Your task to perform on an android device: Open sound settings Image 0: 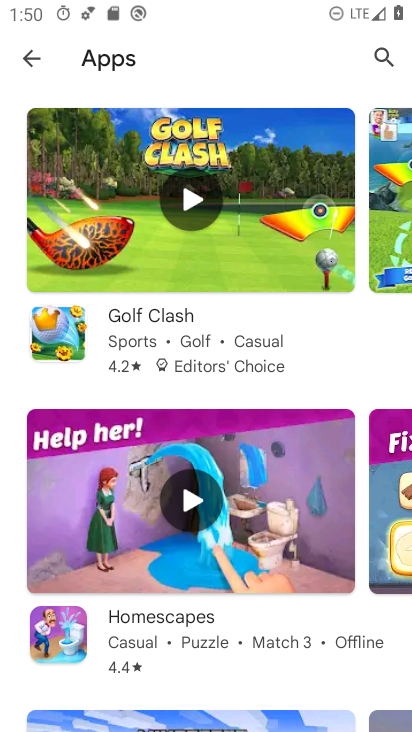
Step 0: press home button
Your task to perform on an android device: Open sound settings Image 1: 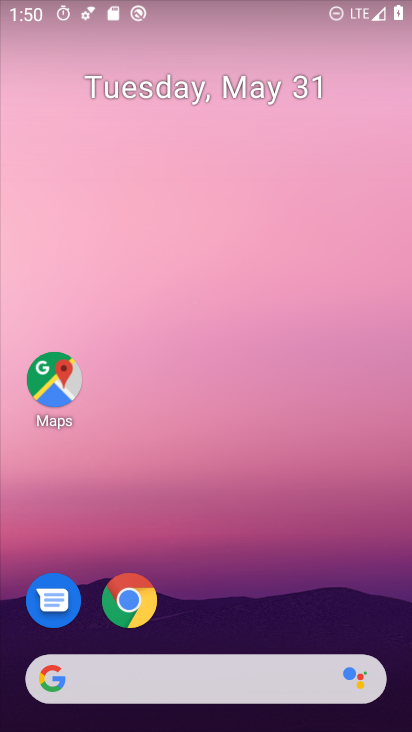
Step 1: drag from (211, 722) to (180, 225)
Your task to perform on an android device: Open sound settings Image 2: 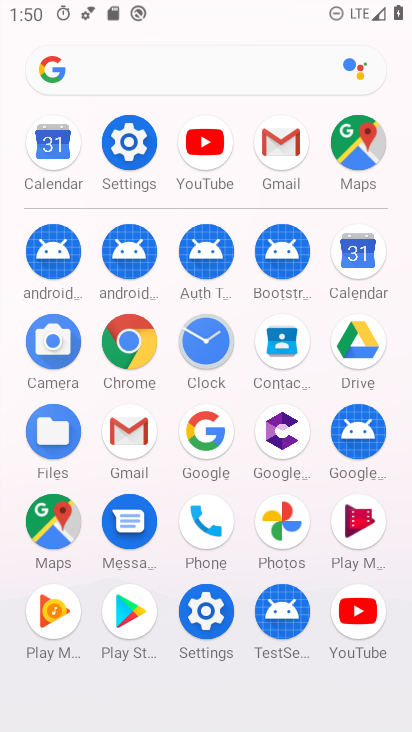
Step 2: click (130, 136)
Your task to perform on an android device: Open sound settings Image 3: 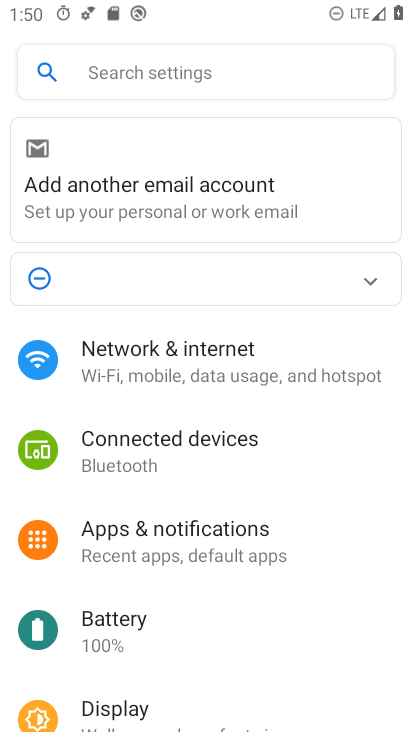
Step 3: drag from (269, 666) to (272, 334)
Your task to perform on an android device: Open sound settings Image 4: 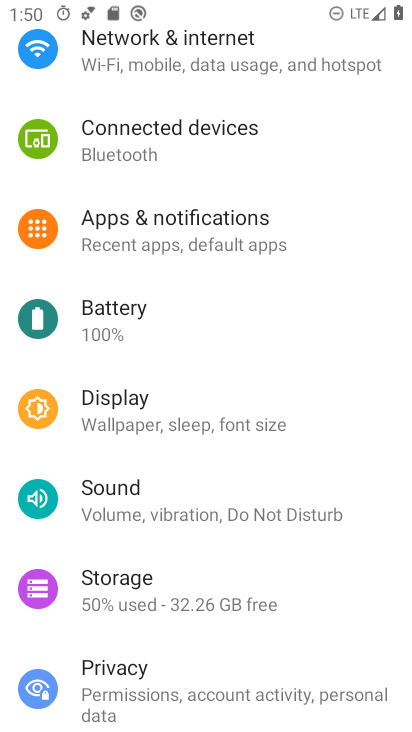
Step 4: click (115, 500)
Your task to perform on an android device: Open sound settings Image 5: 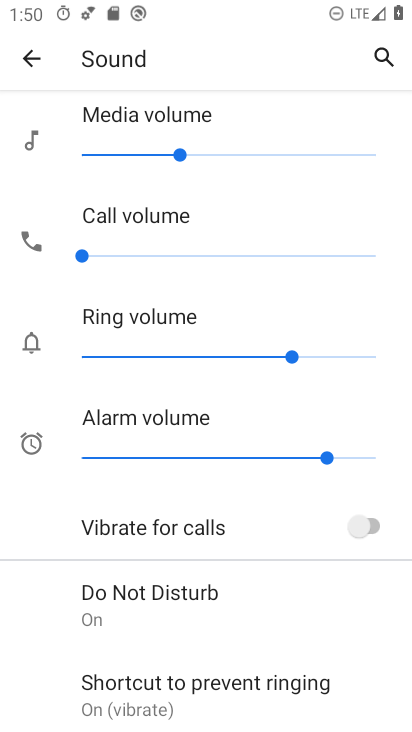
Step 5: task complete